Your task to perform on an android device: What's the weather going to be this weekend? Image 0: 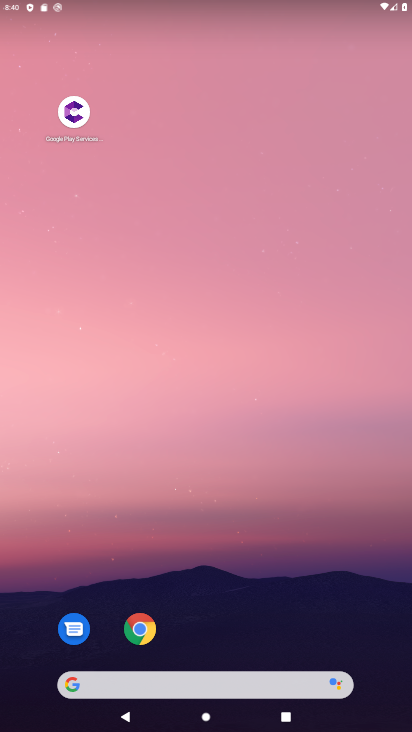
Step 0: drag from (219, 630) to (203, 121)
Your task to perform on an android device: What's the weather going to be this weekend? Image 1: 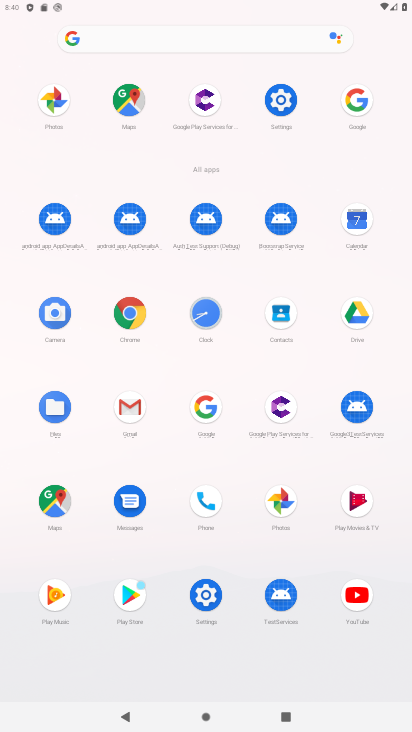
Step 1: click (204, 409)
Your task to perform on an android device: What's the weather going to be this weekend? Image 2: 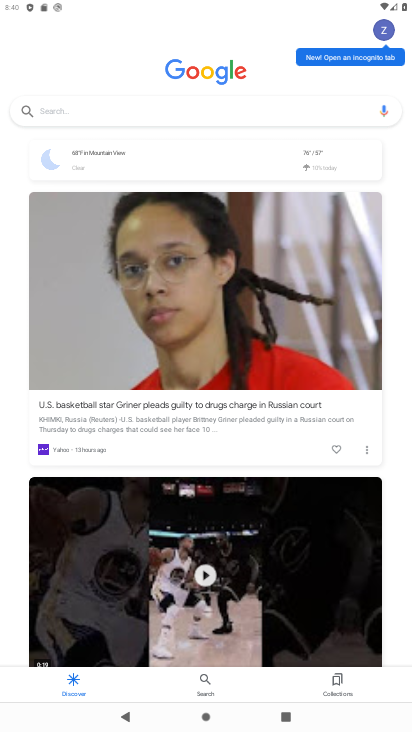
Step 2: click (142, 114)
Your task to perform on an android device: What's the weather going to be this weekend? Image 3: 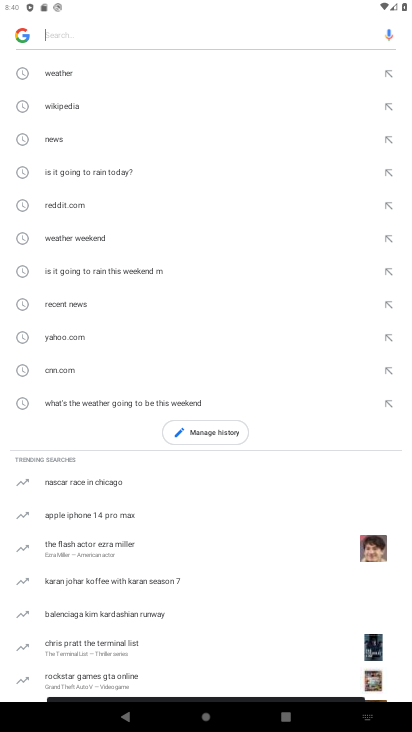
Step 3: click (67, 70)
Your task to perform on an android device: What's the weather going to be this weekend? Image 4: 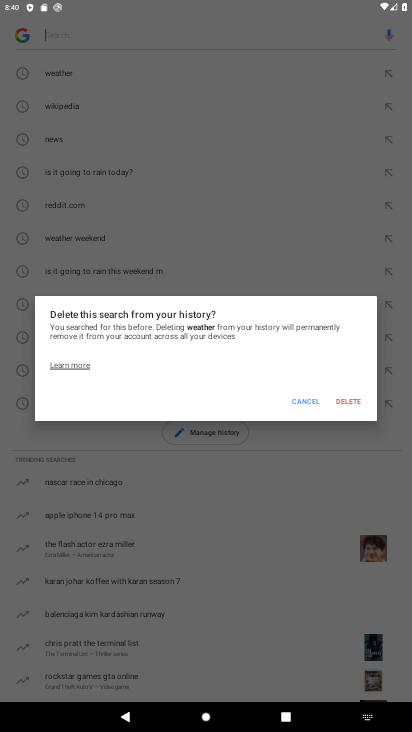
Step 4: click (339, 400)
Your task to perform on an android device: What's the weather going to be this weekend? Image 5: 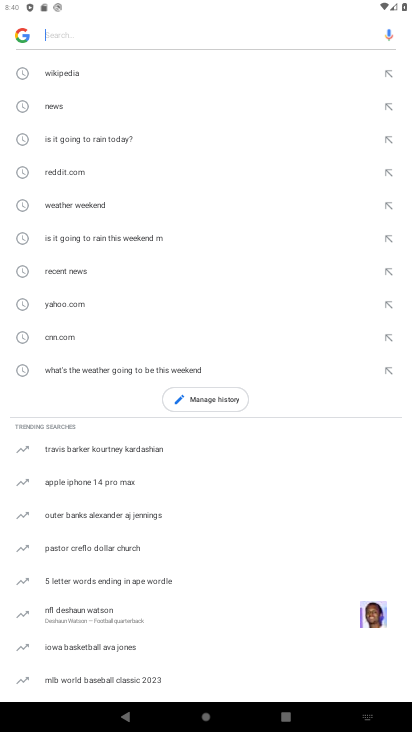
Step 5: click (100, 202)
Your task to perform on an android device: What's the weather going to be this weekend? Image 6: 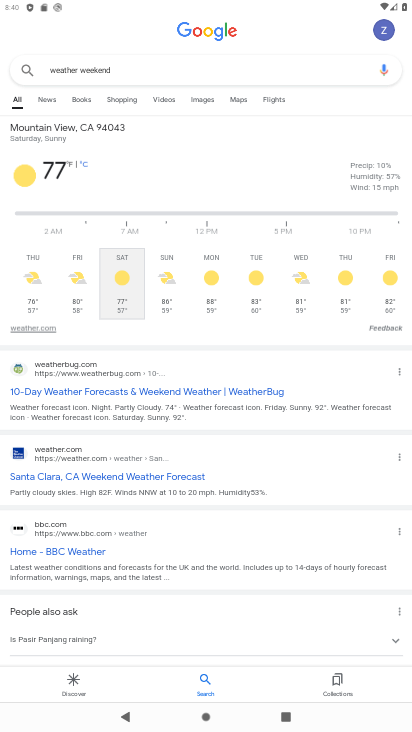
Step 6: task complete